Your task to perform on an android device: Go to internet settings Image 0: 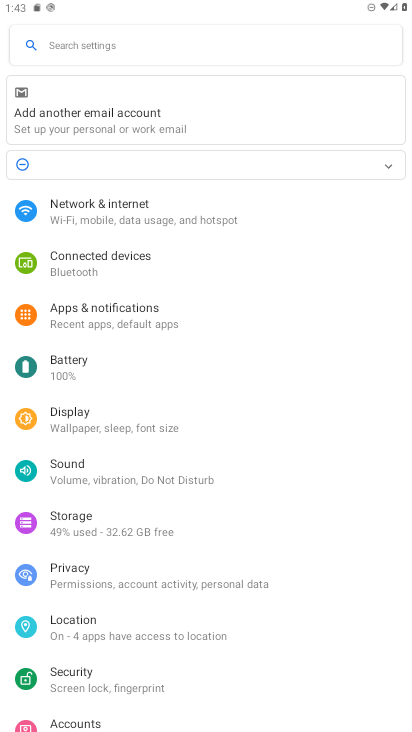
Step 0: task impossible